Your task to perform on an android device: add a label to a message in the gmail app Image 0: 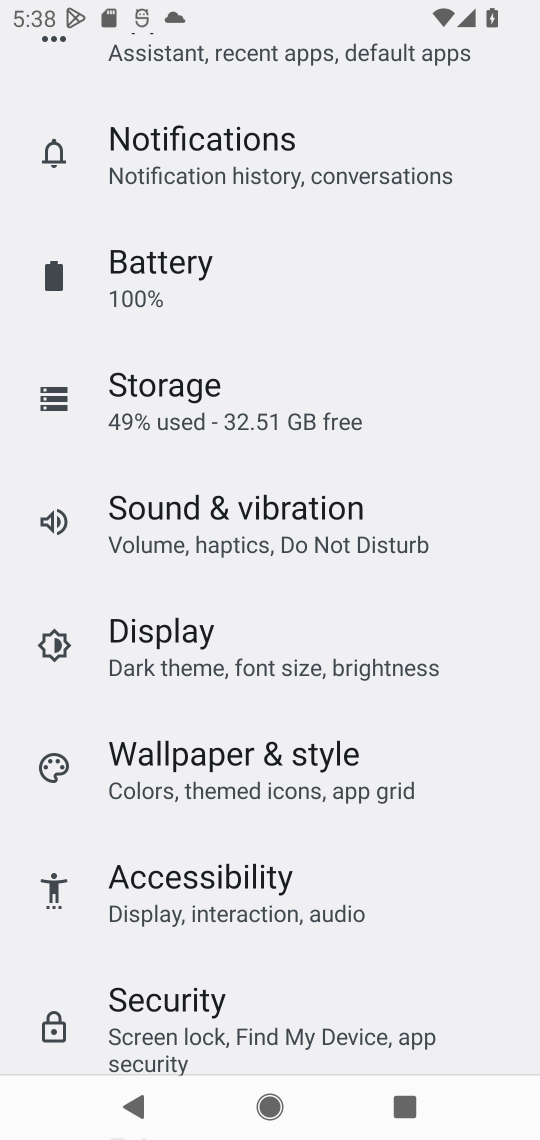
Step 0: press home button
Your task to perform on an android device: add a label to a message in the gmail app Image 1: 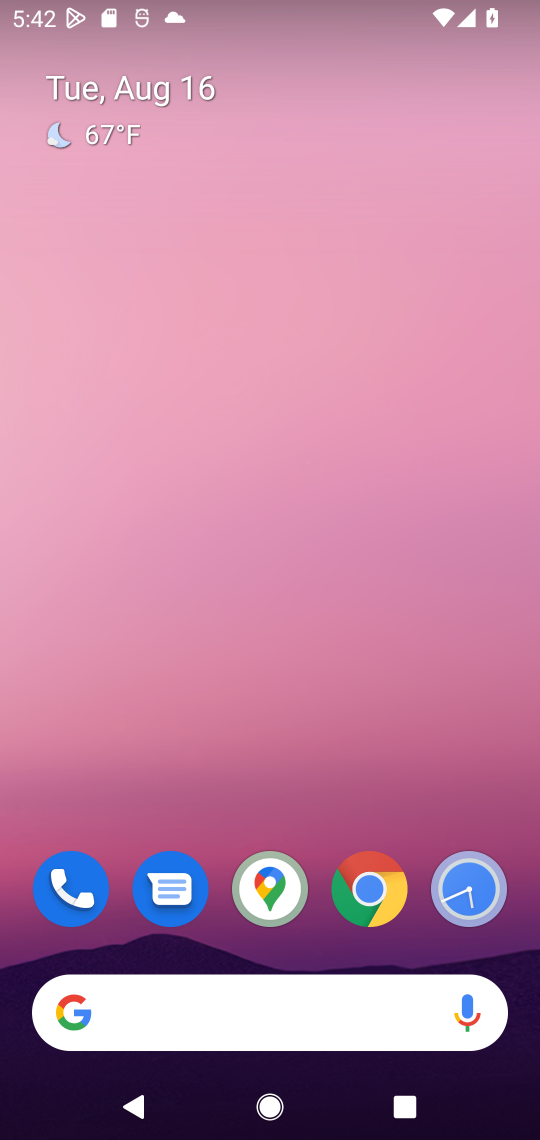
Step 1: drag from (204, 727) to (224, 49)
Your task to perform on an android device: add a label to a message in the gmail app Image 2: 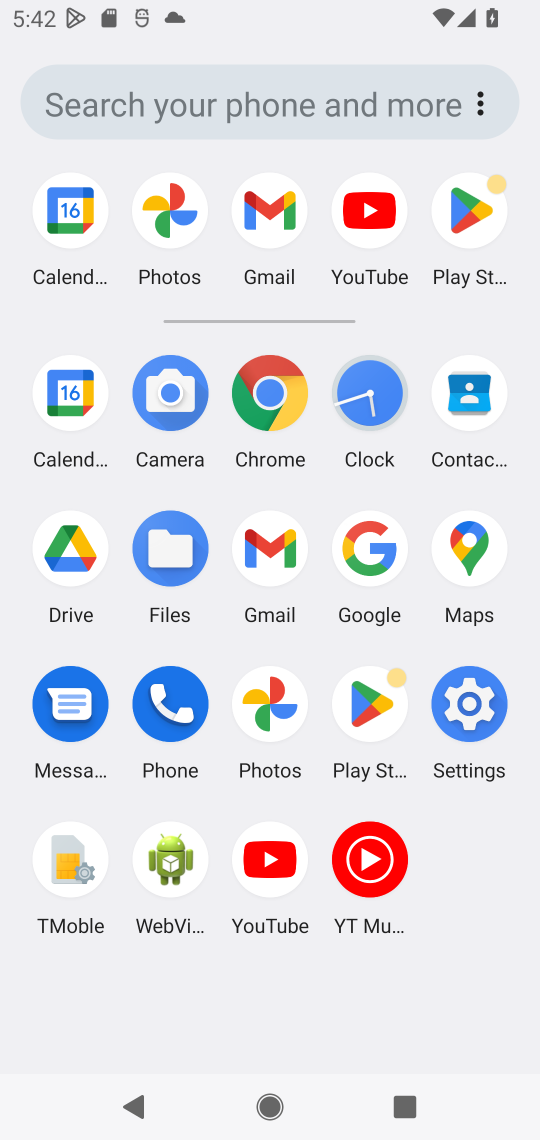
Step 2: click (275, 529)
Your task to perform on an android device: add a label to a message in the gmail app Image 3: 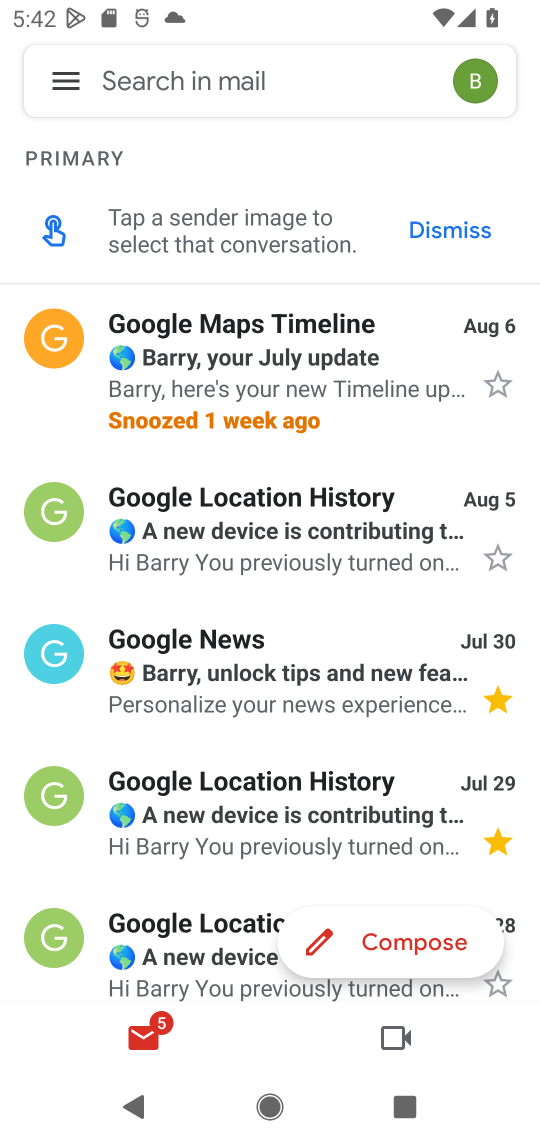
Step 3: task complete